Your task to perform on an android device: Is it going to rain today? Image 0: 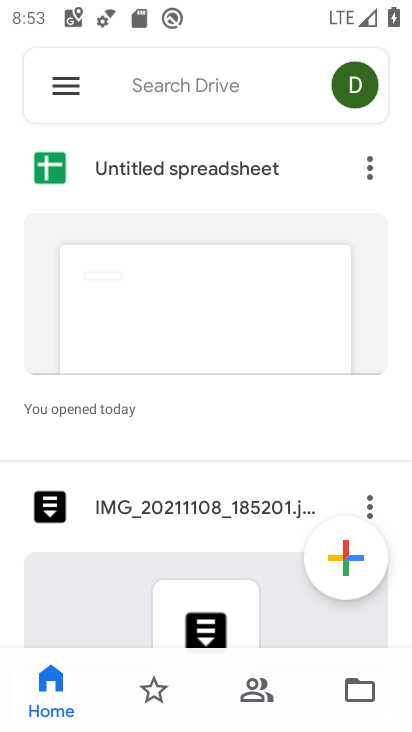
Step 0: press home button
Your task to perform on an android device: Is it going to rain today? Image 1: 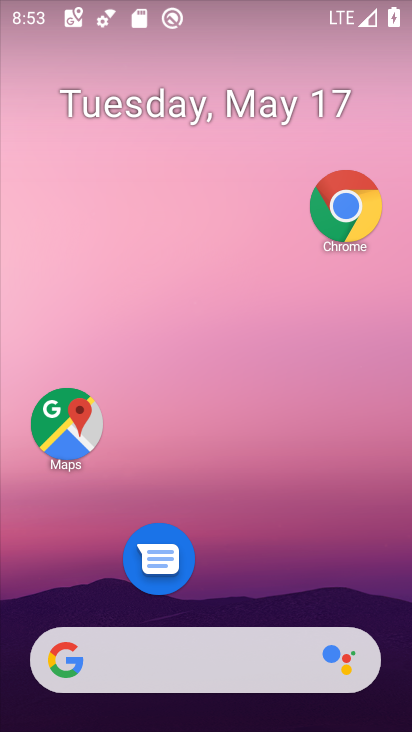
Step 1: drag from (226, 640) to (322, 68)
Your task to perform on an android device: Is it going to rain today? Image 2: 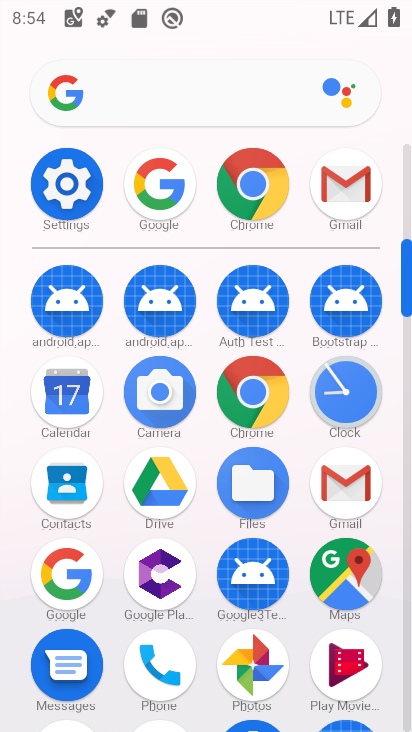
Step 2: click (82, 585)
Your task to perform on an android device: Is it going to rain today? Image 3: 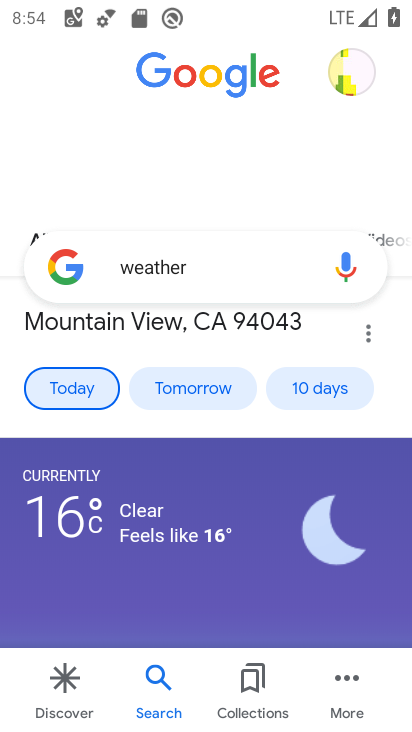
Step 3: task complete